Your task to perform on an android device: Go to sound settings Image 0: 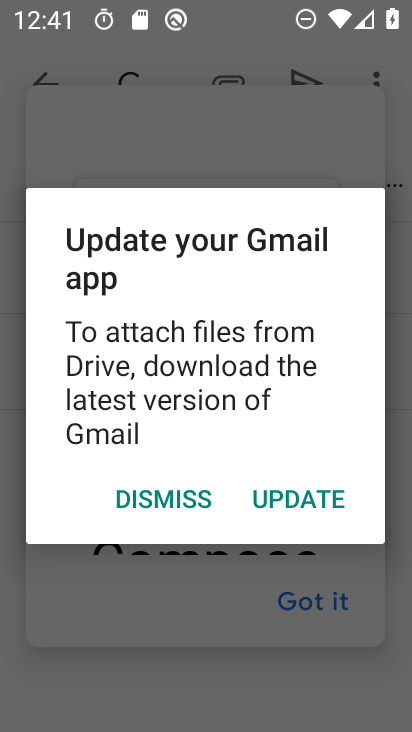
Step 0: press home button
Your task to perform on an android device: Go to sound settings Image 1: 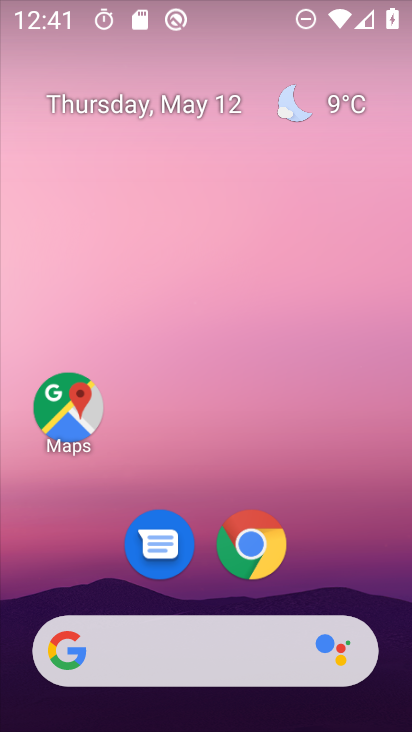
Step 1: drag from (206, 721) to (210, 262)
Your task to perform on an android device: Go to sound settings Image 2: 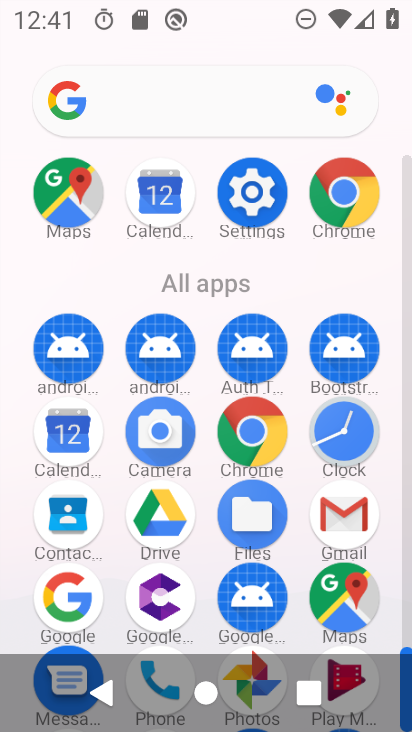
Step 2: click (256, 188)
Your task to perform on an android device: Go to sound settings Image 3: 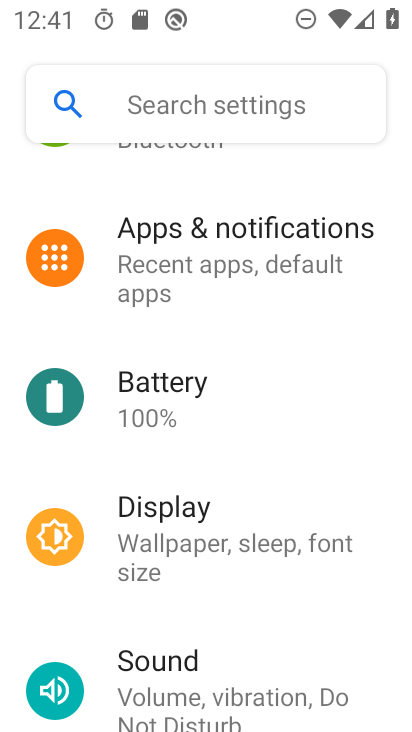
Step 3: click (130, 662)
Your task to perform on an android device: Go to sound settings Image 4: 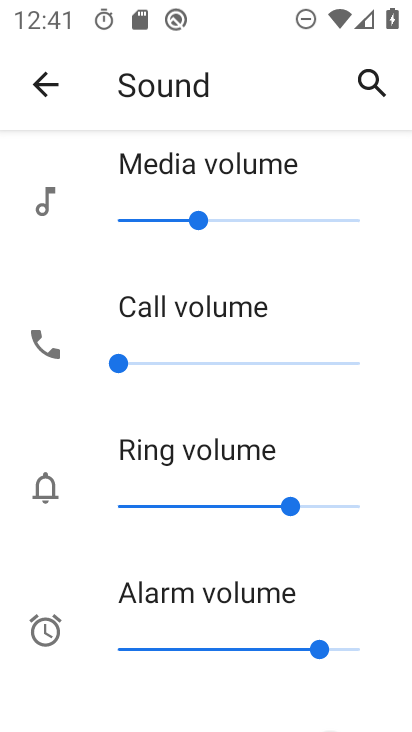
Step 4: task complete